Your task to perform on an android device: Check the news Image 0: 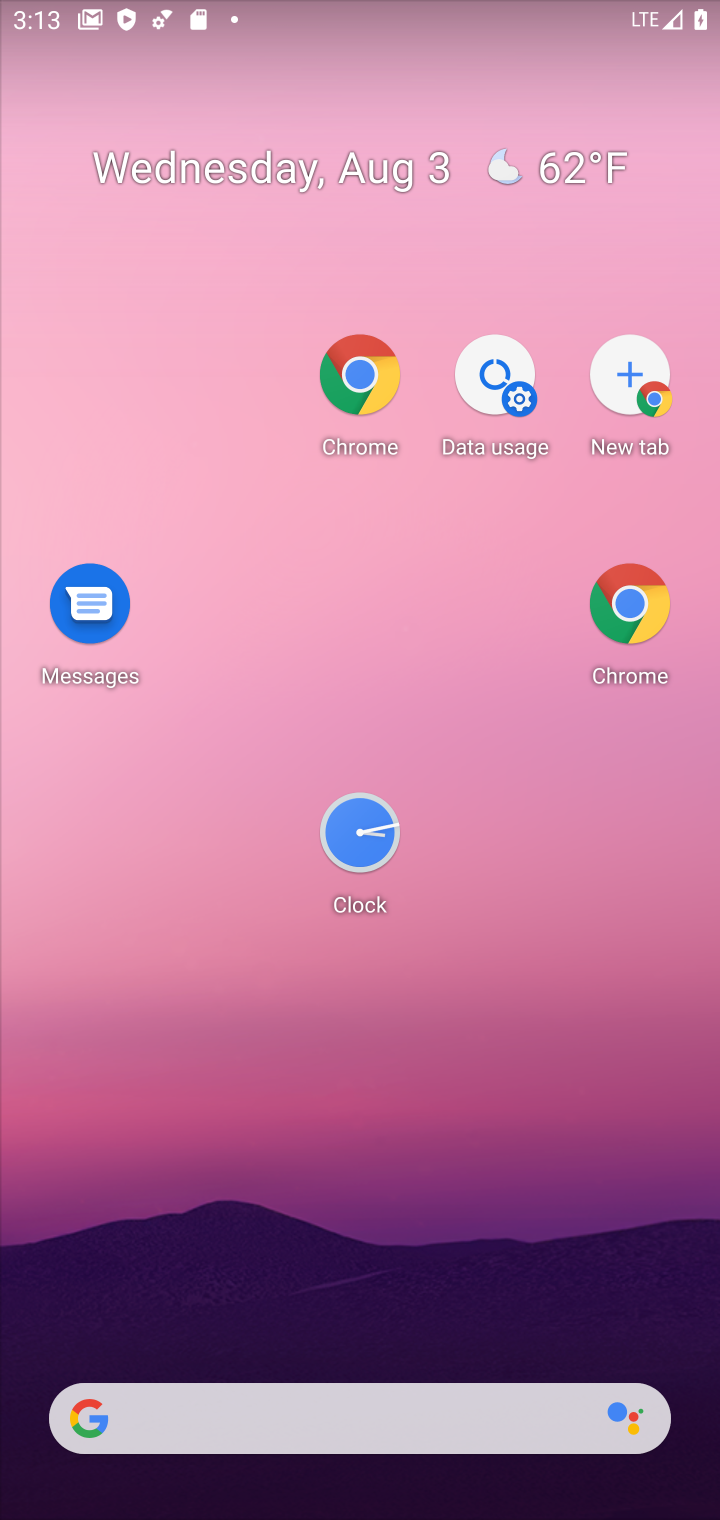
Step 0: drag from (197, 1223) to (181, 245)
Your task to perform on an android device: Check the news Image 1: 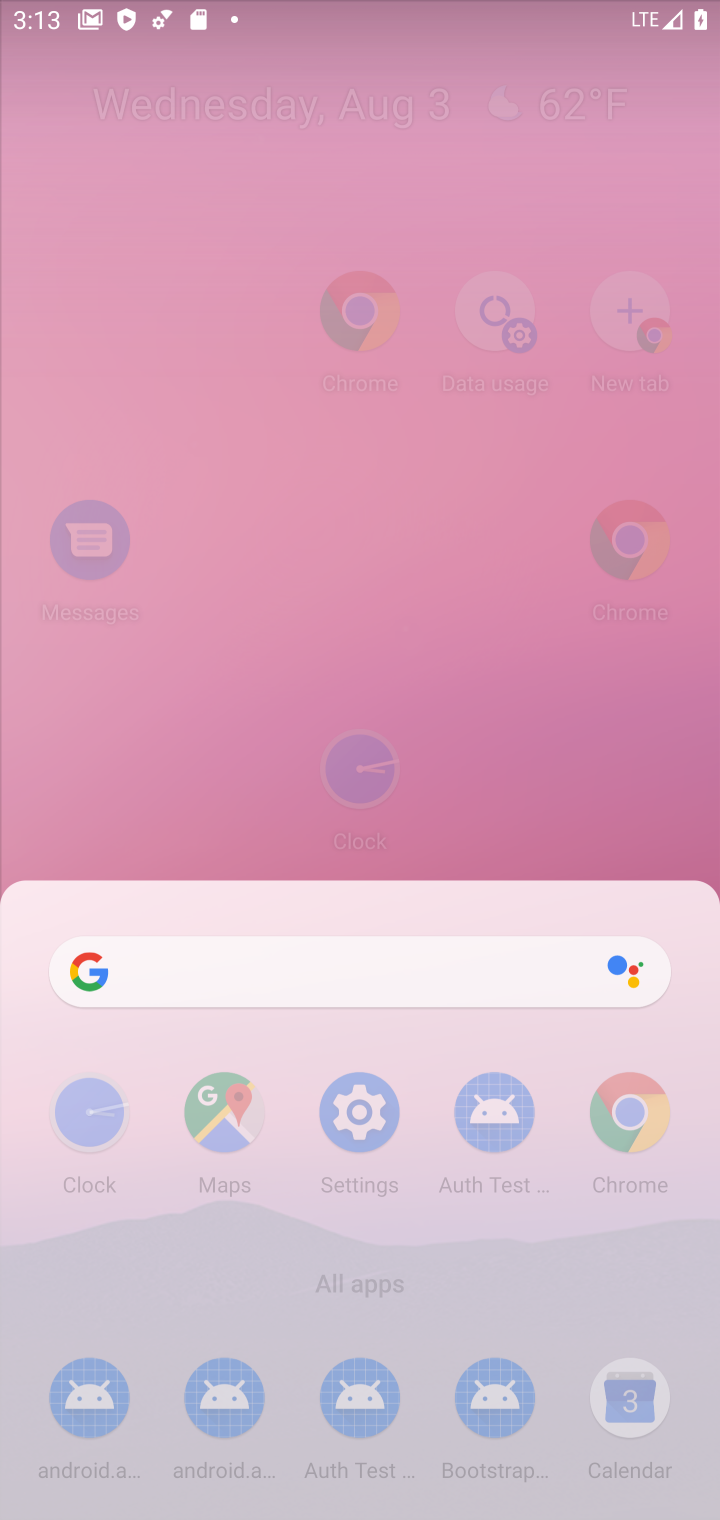
Step 1: drag from (352, 711) to (325, 321)
Your task to perform on an android device: Check the news Image 2: 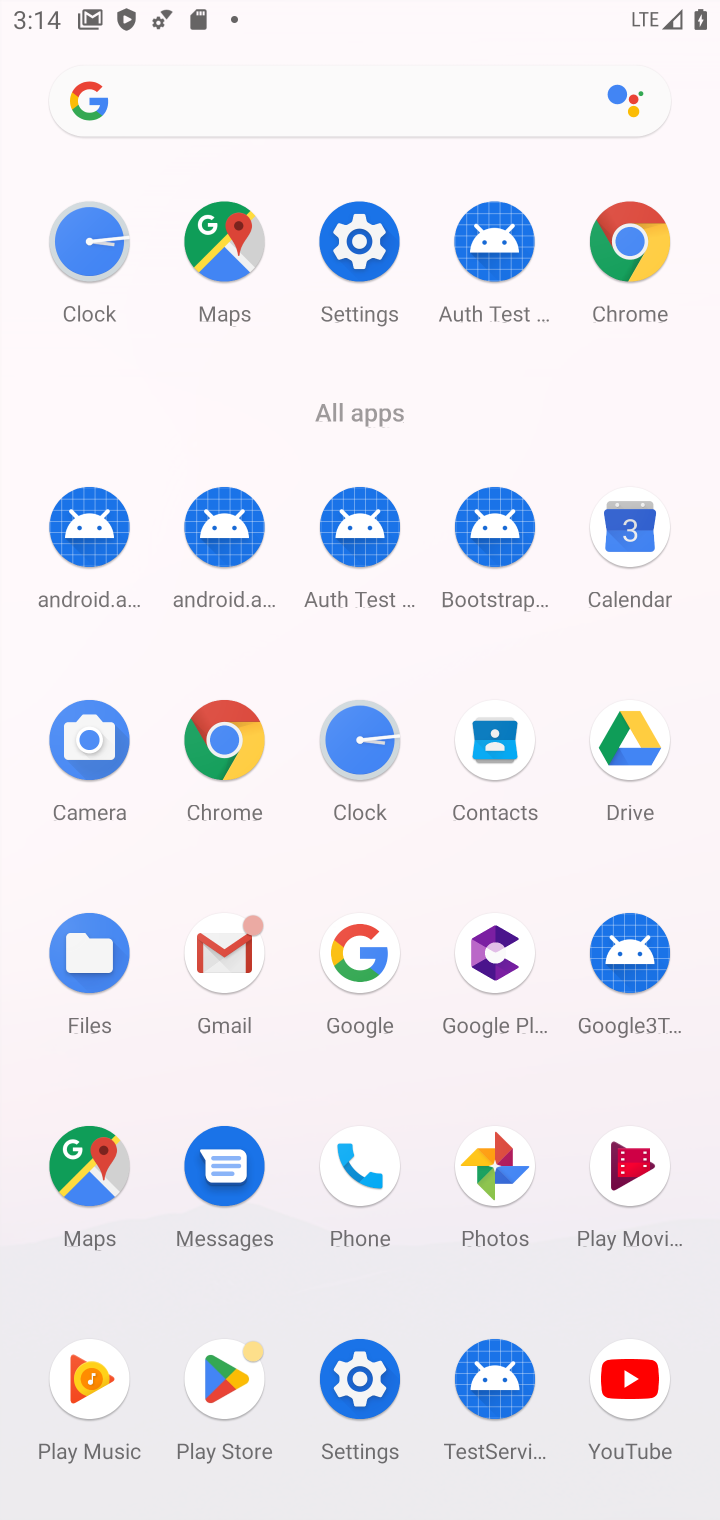
Step 2: click (608, 247)
Your task to perform on an android device: Check the news Image 3: 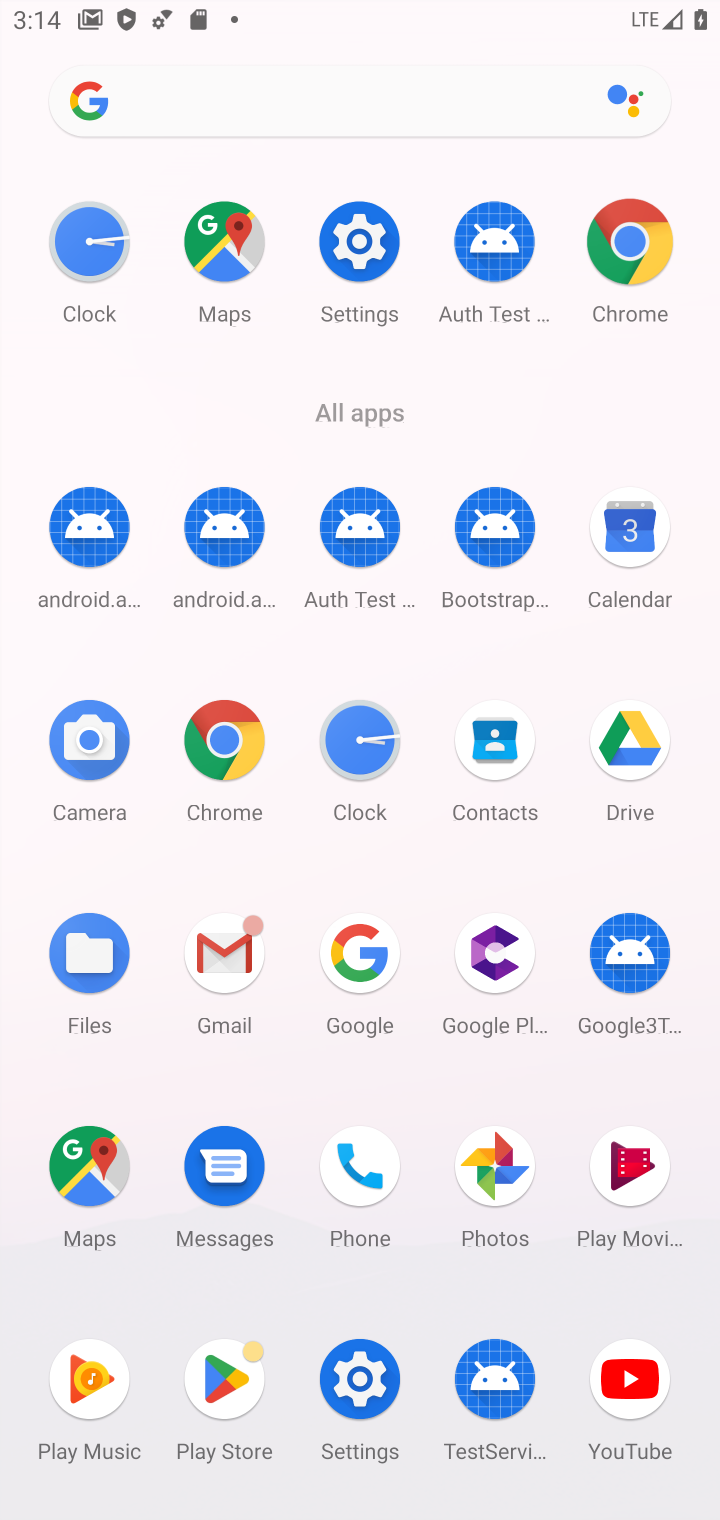
Step 3: click (594, 276)
Your task to perform on an android device: Check the news Image 4: 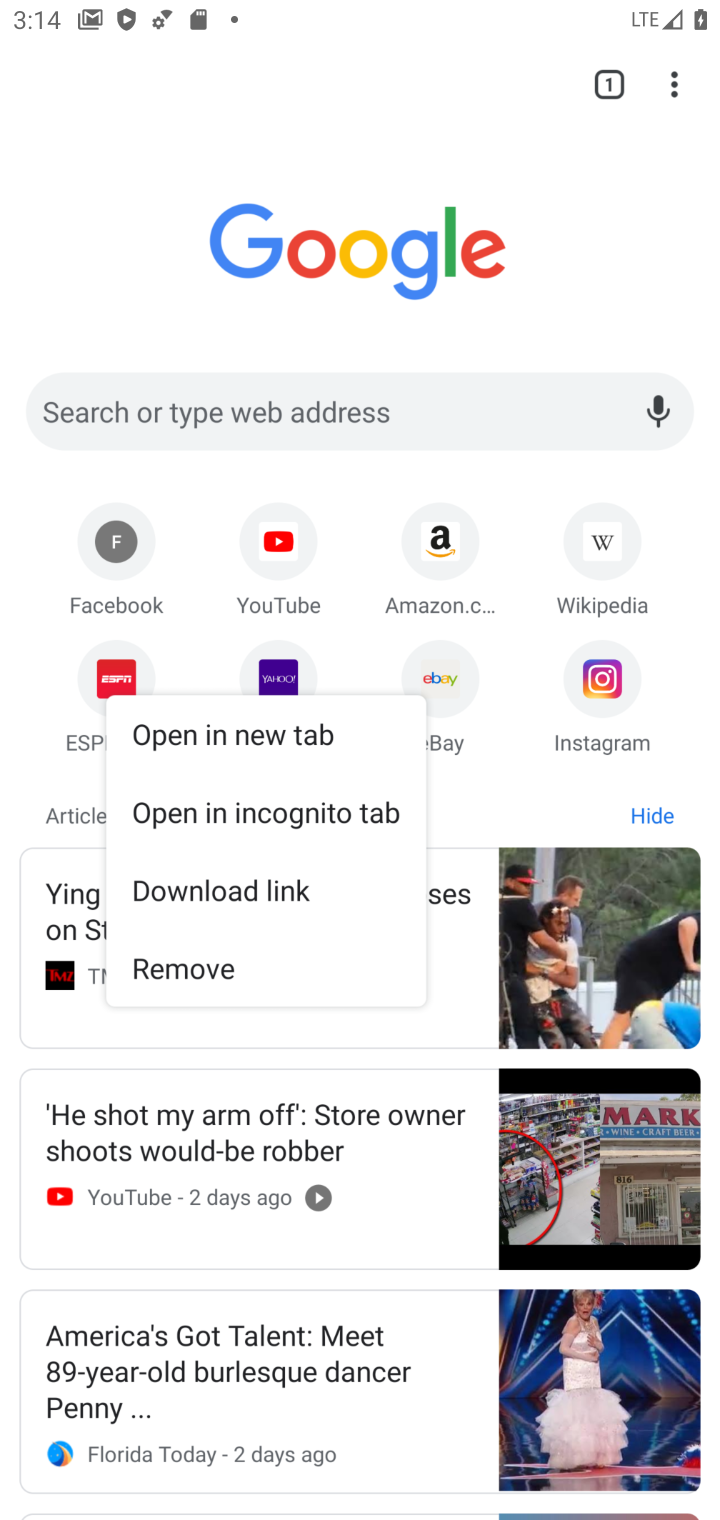
Step 4: click (618, 240)
Your task to perform on an android device: Check the news Image 5: 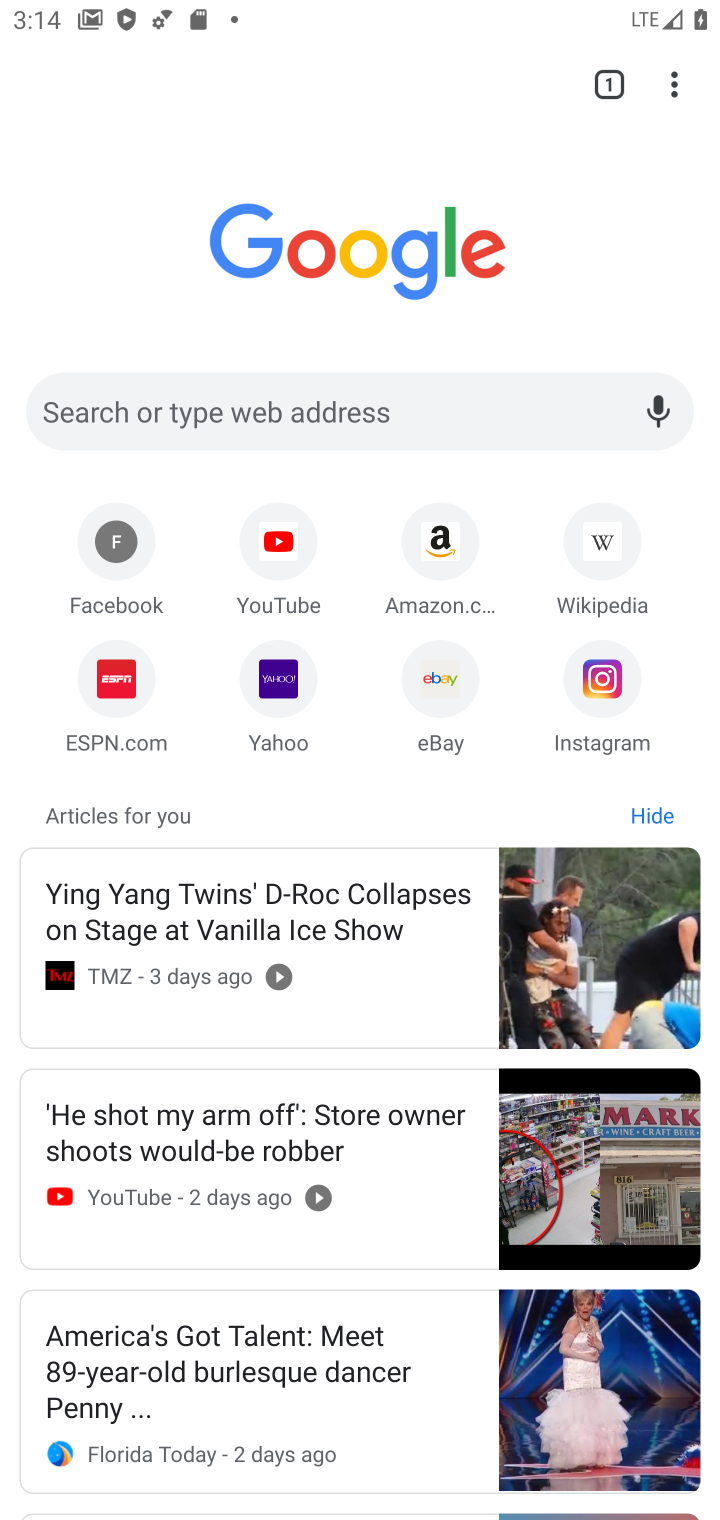
Step 5: task complete